Your task to perform on an android device: search for starred emails in the gmail app Image 0: 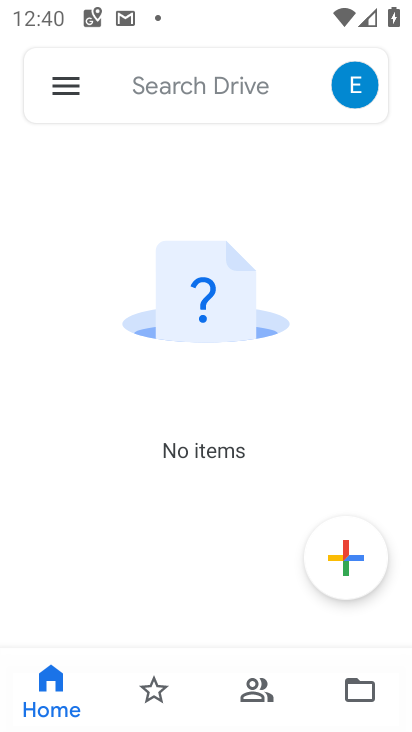
Step 0: press home button
Your task to perform on an android device: search for starred emails in the gmail app Image 1: 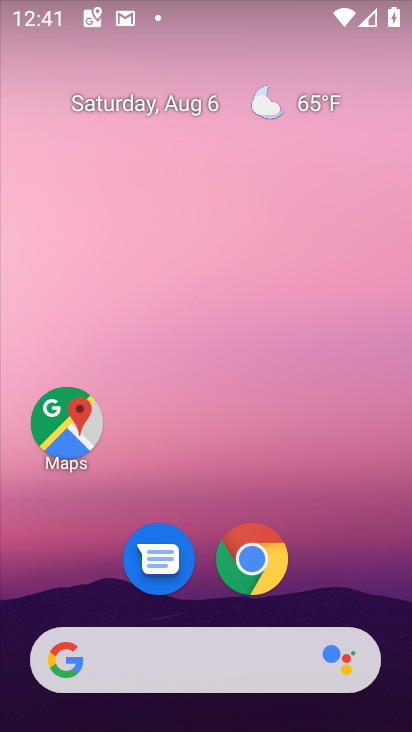
Step 1: drag from (164, 298) to (175, 260)
Your task to perform on an android device: search for starred emails in the gmail app Image 2: 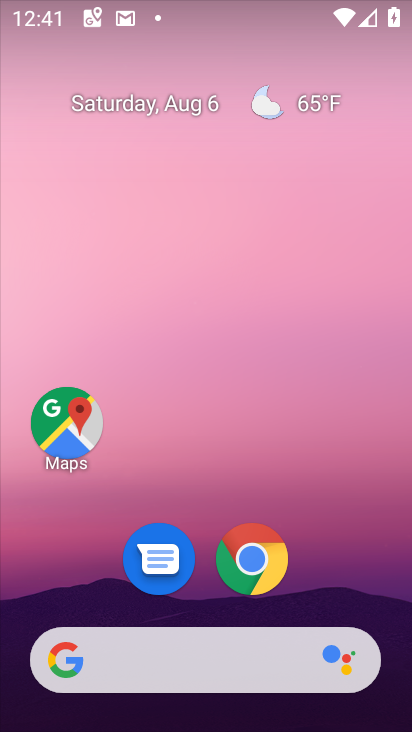
Step 2: drag from (73, 150) to (77, 62)
Your task to perform on an android device: search for starred emails in the gmail app Image 3: 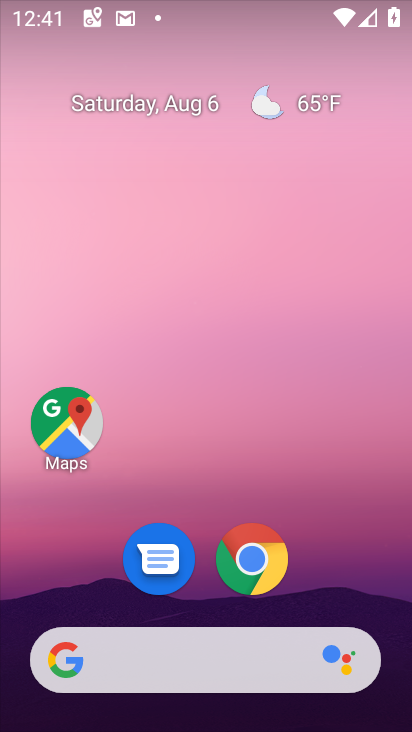
Step 3: drag from (126, 716) to (211, 98)
Your task to perform on an android device: search for starred emails in the gmail app Image 4: 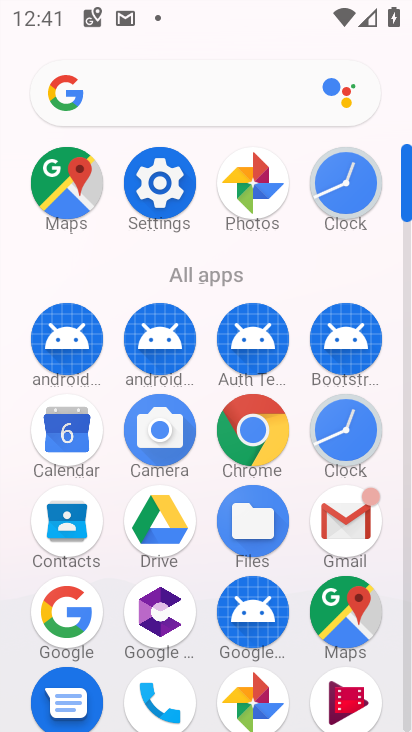
Step 4: click (363, 526)
Your task to perform on an android device: search for starred emails in the gmail app Image 5: 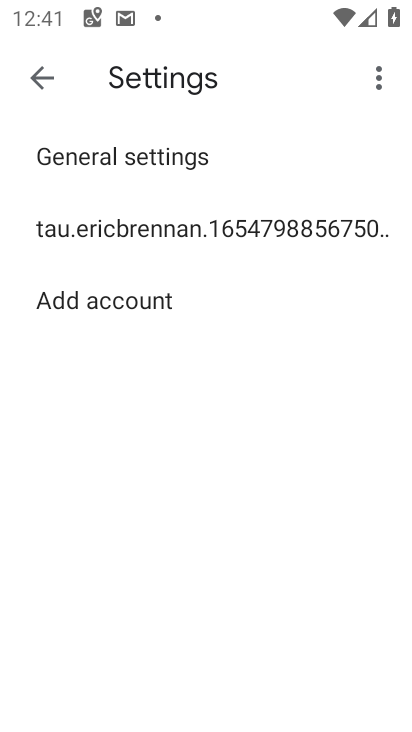
Step 5: click (80, 233)
Your task to perform on an android device: search for starred emails in the gmail app Image 6: 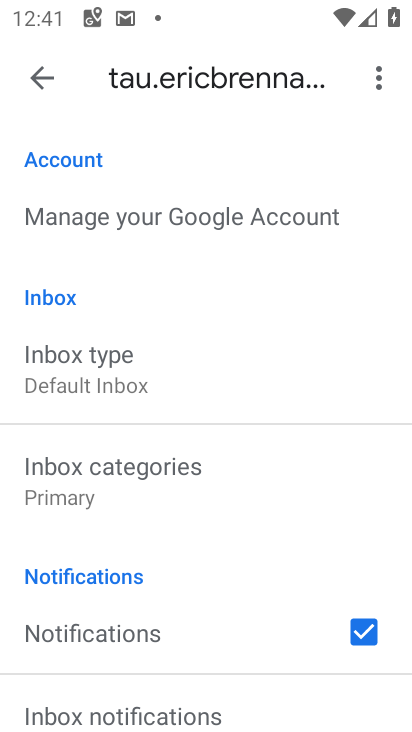
Step 6: click (36, 80)
Your task to perform on an android device: search for starred emails in the gmail app Image 7: 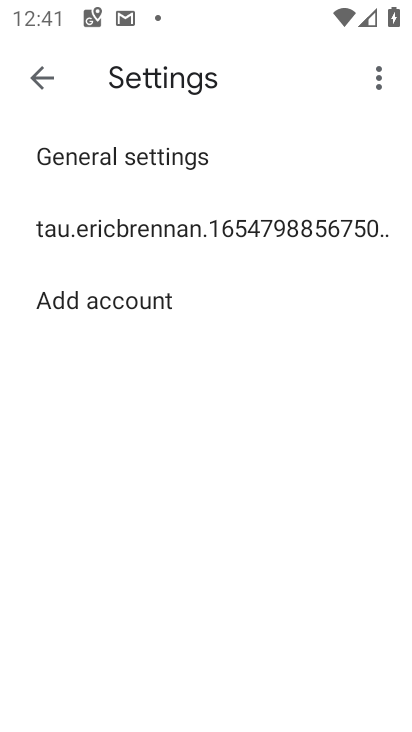
Step 7: click (36, 80)
Your task to perform on an android device: search for starred emails in the gmail app Image 8: 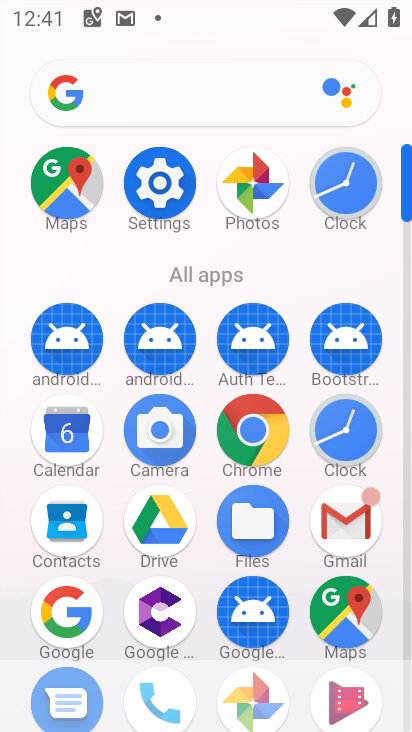
Step 8: click (333, 525)
Your task to perform on an android device: search for starred emails in the gmail app Image 9: 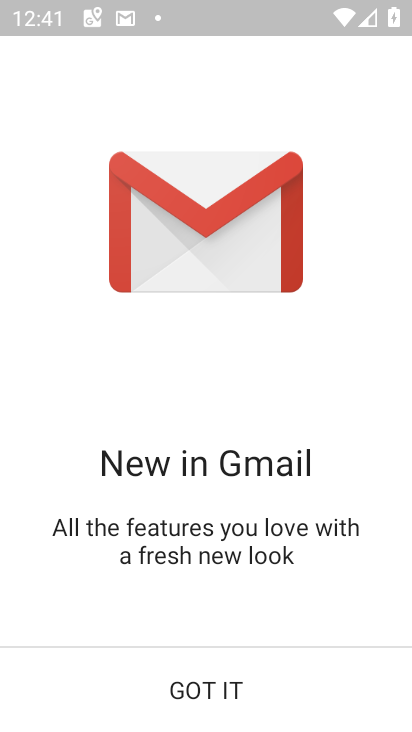
Step 9: click (235, 699)
Your task to perform on an android device: search for starred emails in the gmail app Image 10: 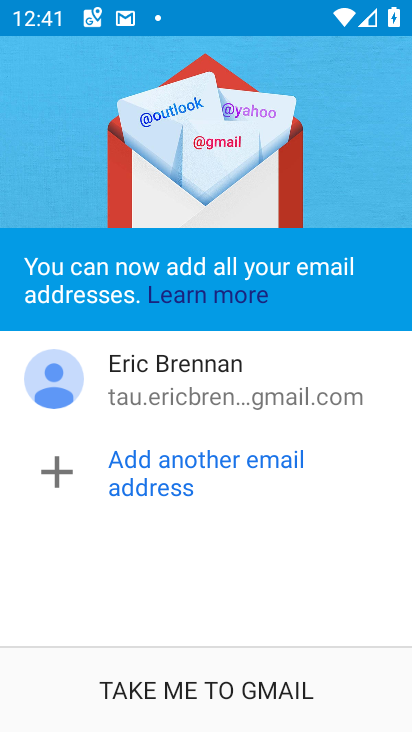
Step 10: click (295, 679)
Your task to perform on an android device: search for starred emails in the gmail app Image 11: 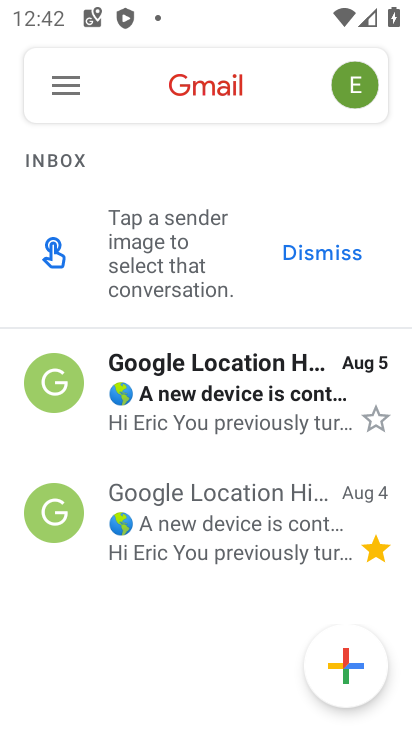
Step 11: click (57, 93)
Your task to perform on an android device: search for starred emails in the gmail app Image 12: 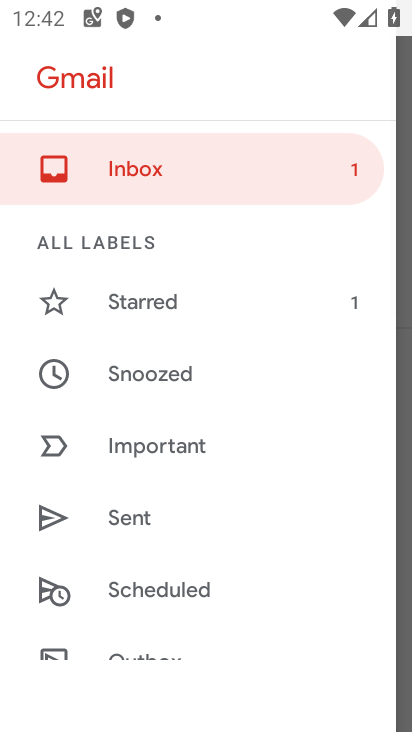
Step 12: click (184, 297)
Your task to perform on an android device: search for starred emails in the gmail app Image 13: 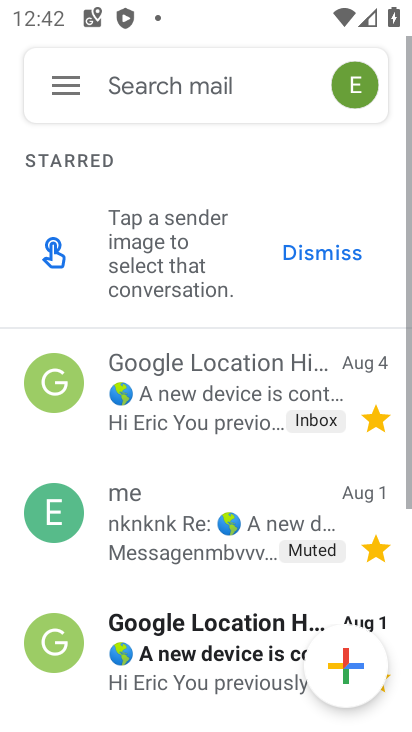
Step 13: task complete